Your task to perform on an android device: Open notification settings Image 0: 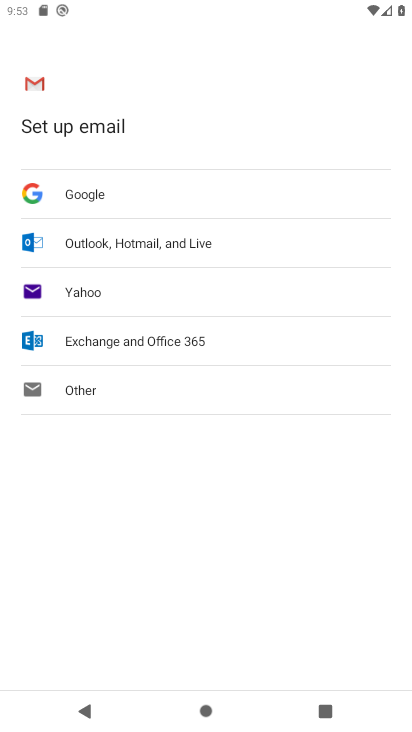
Step 0: press back button
Your task to perform on an android device: Open notification settings Image 1: 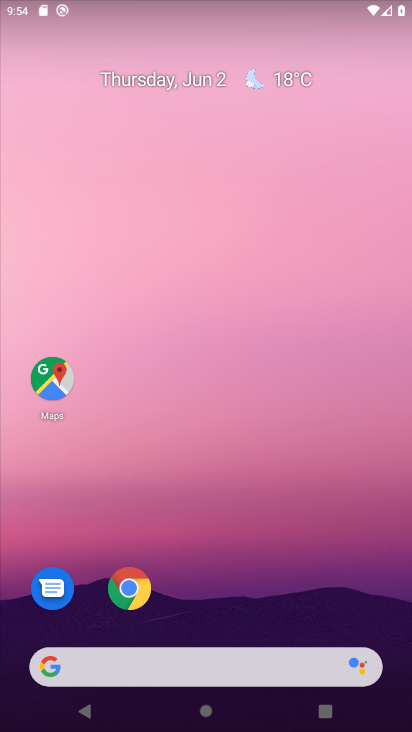
Step 1: drag from (239, 652) to (105, 0)
Your task to perform on an android device: Open notification settings Image 2: 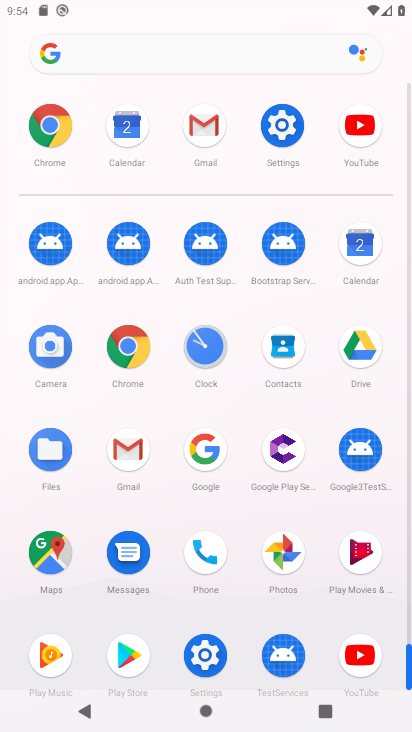
Step 2: click (206, 650)
Your task to perform on an android device: Open notification settings Image 3: 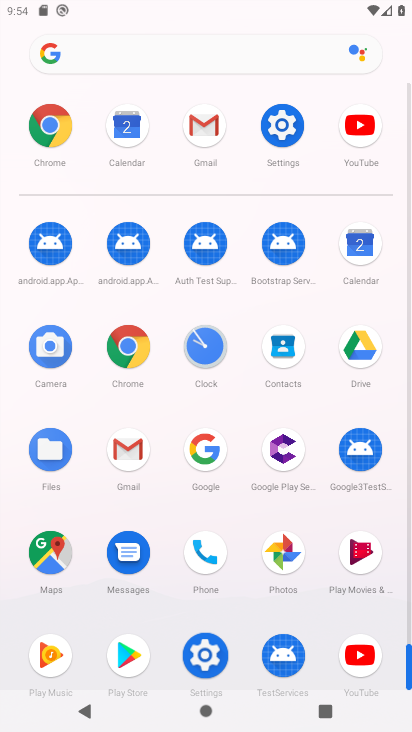
Step 3: click (206, 651)
Your task to perform on an android device: Open notification settings Image 4: 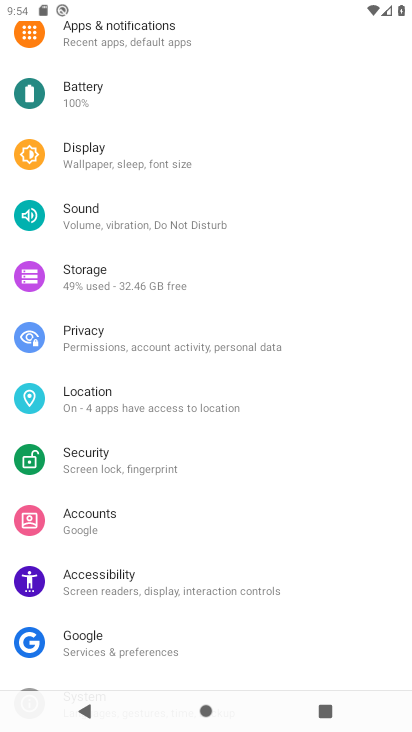
Step 4: click (117, 27)
Your task to perform on an android device: Open notification settings Image 5: 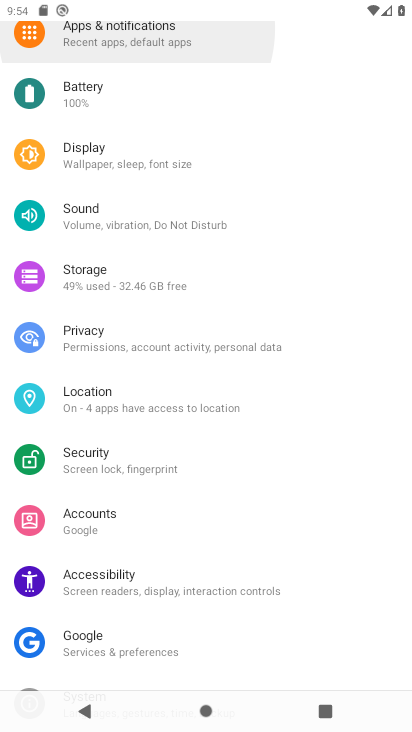
Step 5: click (117, 27)
Your task to perform on an android device: Open notification settings Image 6: 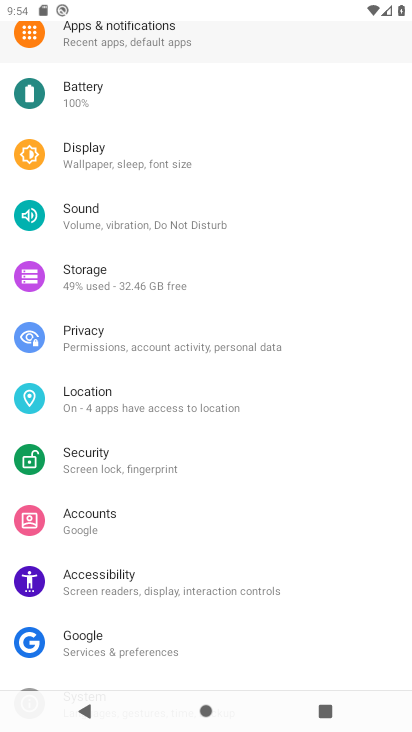
Step 6: click (117, 27)
Your task to perform on an android device: Open notification settings Image 7: 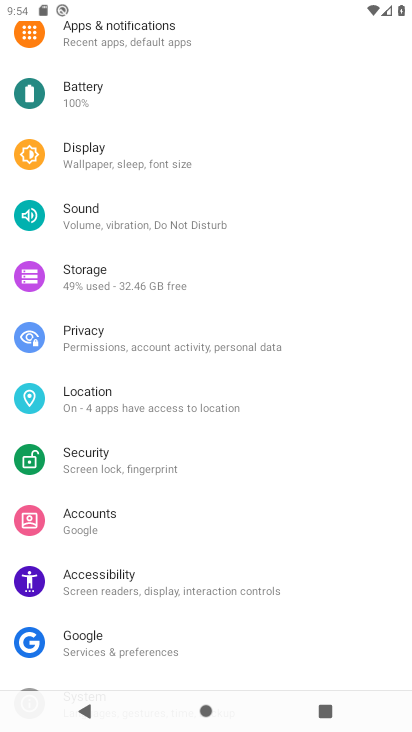
Step 7: click (118, 27)
Your task to perform on an android device: Open notification settings Image 8: 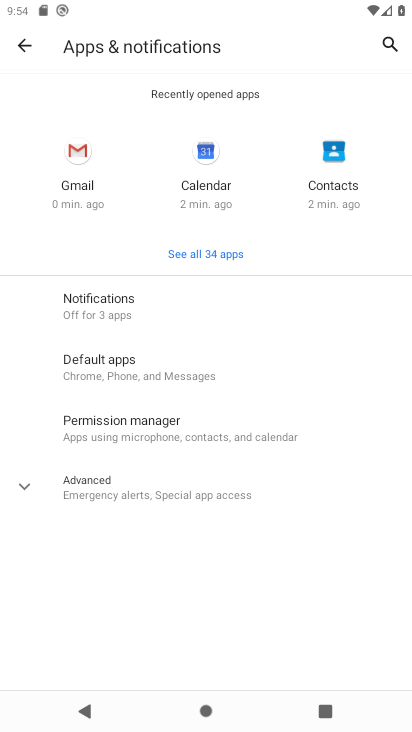
Step 8: click (83, 312)
Your task to perform on an android device: Open notification settings Image 9: 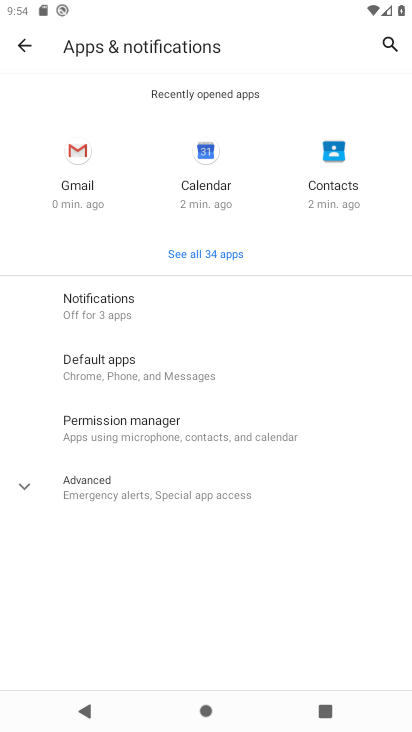
Step 9: click (86, 302)
Your task to perform on an android device: Open notification settings Image 10: 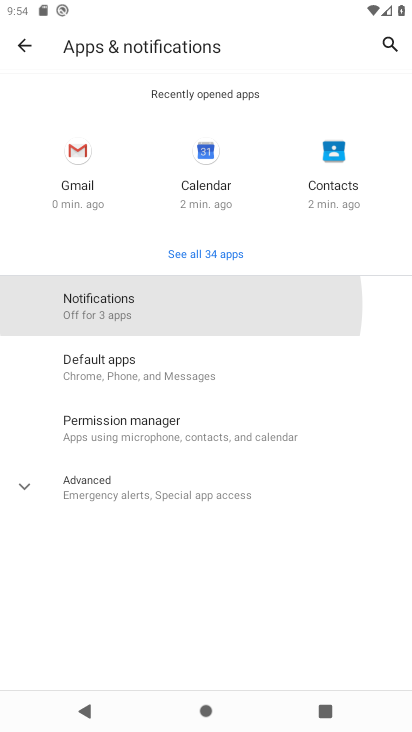
Step 10: click (89, 303)
Your task to perform on an android device: Open notification settings Image 11: 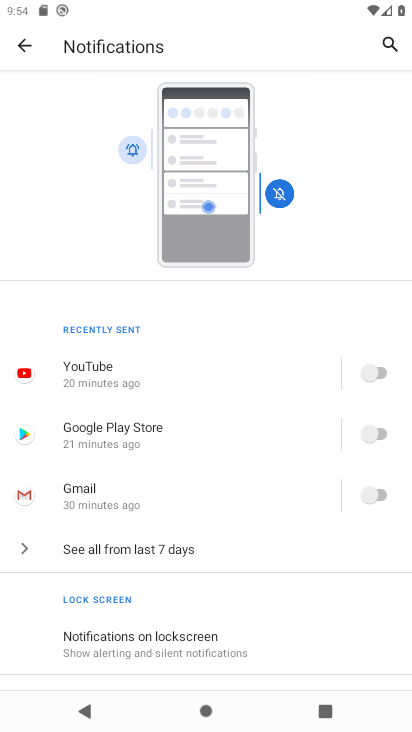
Step 11: task complete